Your task to perform on an android device: refresh tabs in the chrome app Image 0: 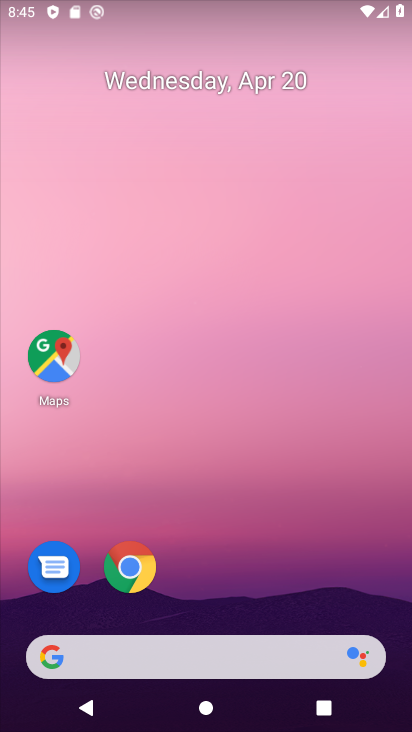
Step 0: click (141, 576)
Your task to perform on an android device: refresh tabs in the chrome app Image 1: 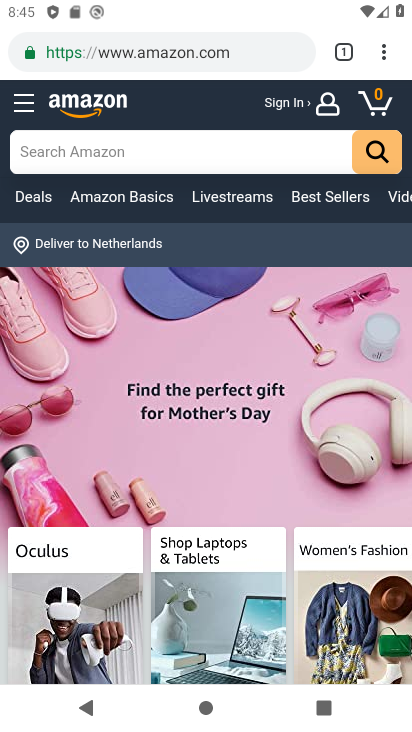
Step 1: click (389, 56)
Your task to perform on an android device: refresh tabs in the chrome app Image 2: 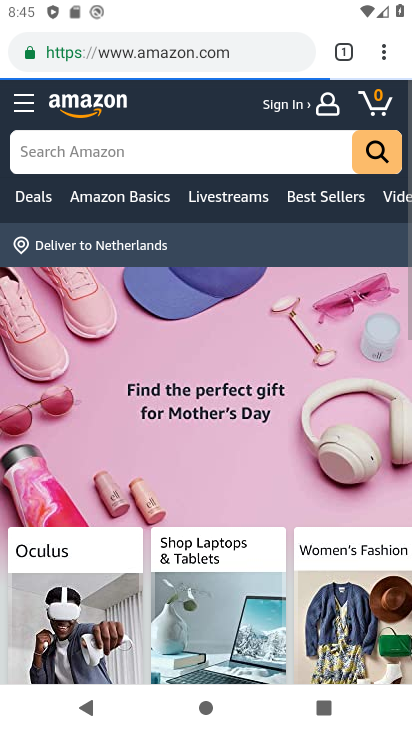
Step 2: click (389, 56)
Your task to perform on an android device: refresh tabs in the chrome app Image 3: 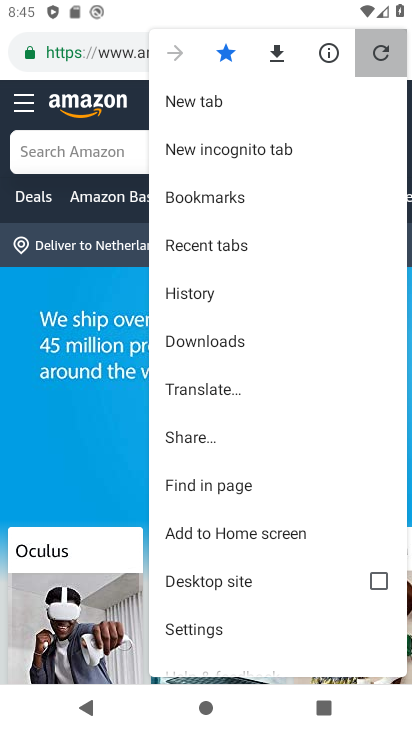
Step 3: click (383, 46)
Your task to perform on an android device: refresh tabs in the chrome app Image 4: 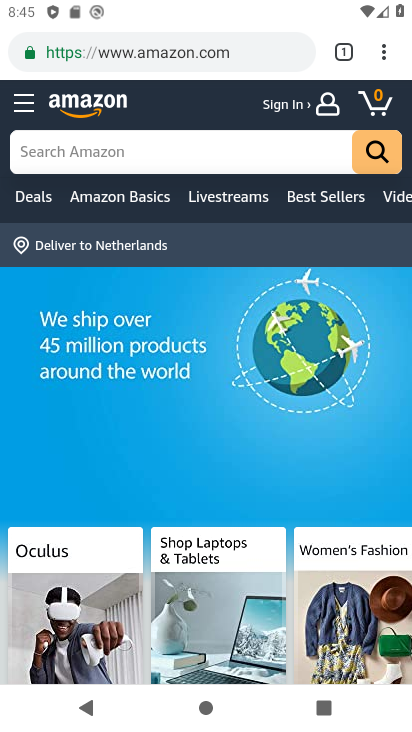
Step 4: task complete